Your task to perform on an android device: uninstall "Move to iOS" Image 0: 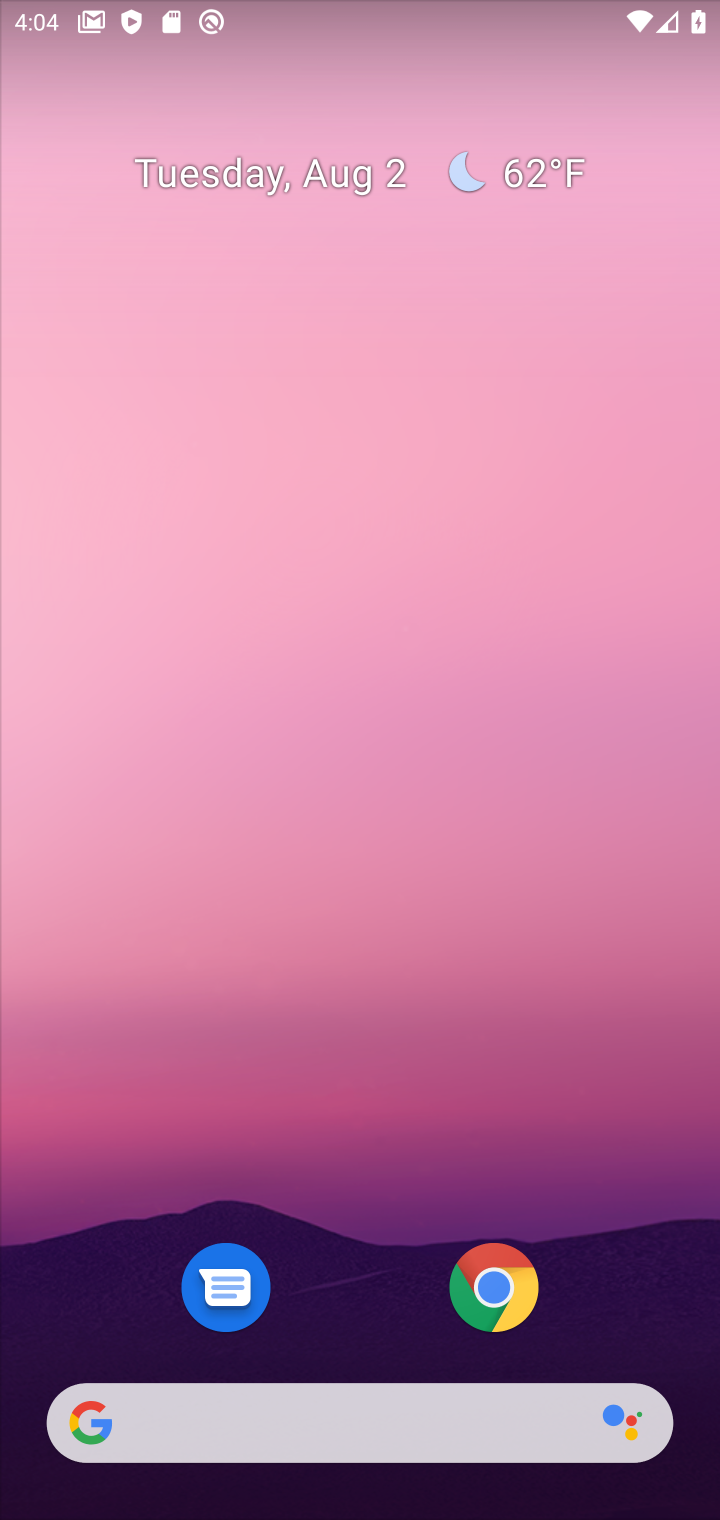
Step 0: drag from (352, 1193) to (317, 714)
Your task to perform on an android device: uninstall "Move to iOS" Image 1: 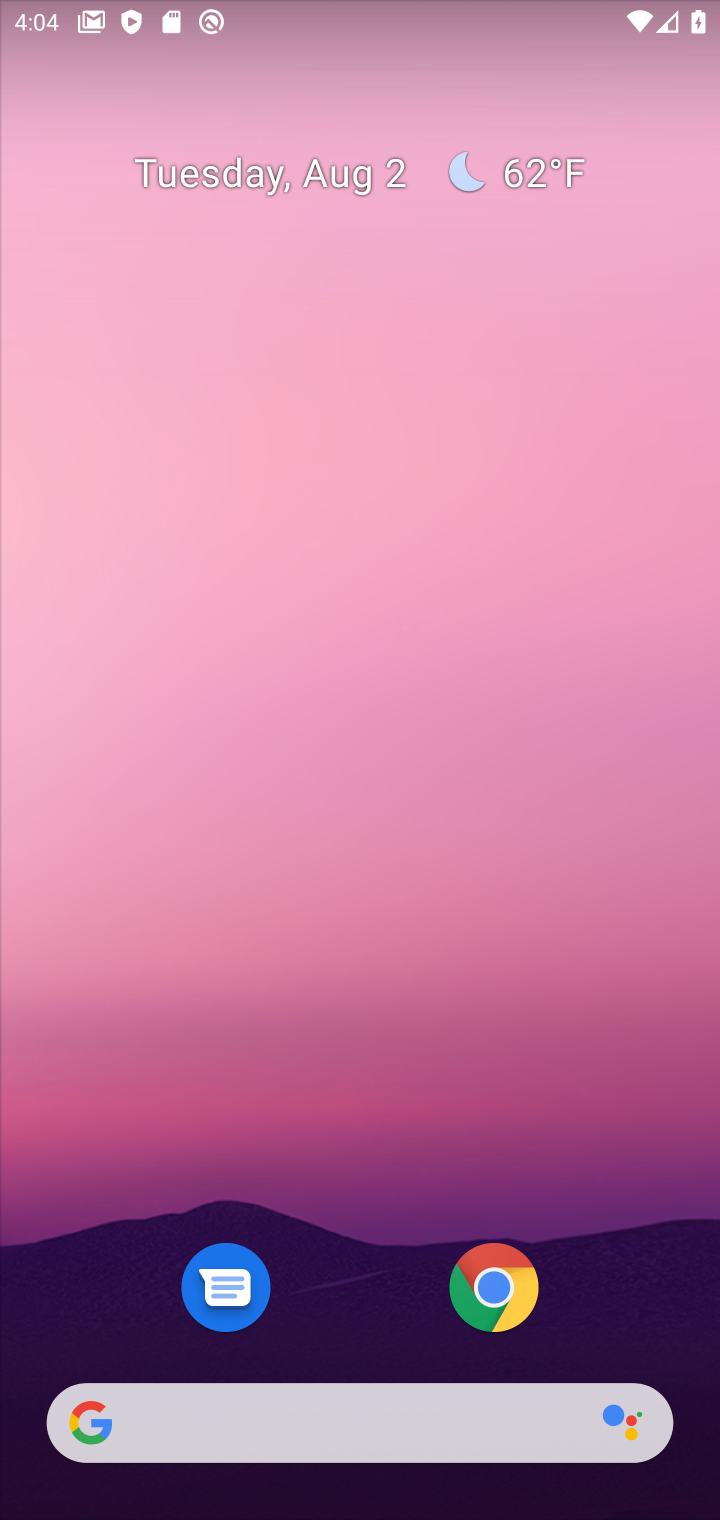
Step 1: drag from (341, 961) to (411, 74)
Your task to perform on an android device: uninstall "Move to iOS" Image 2: 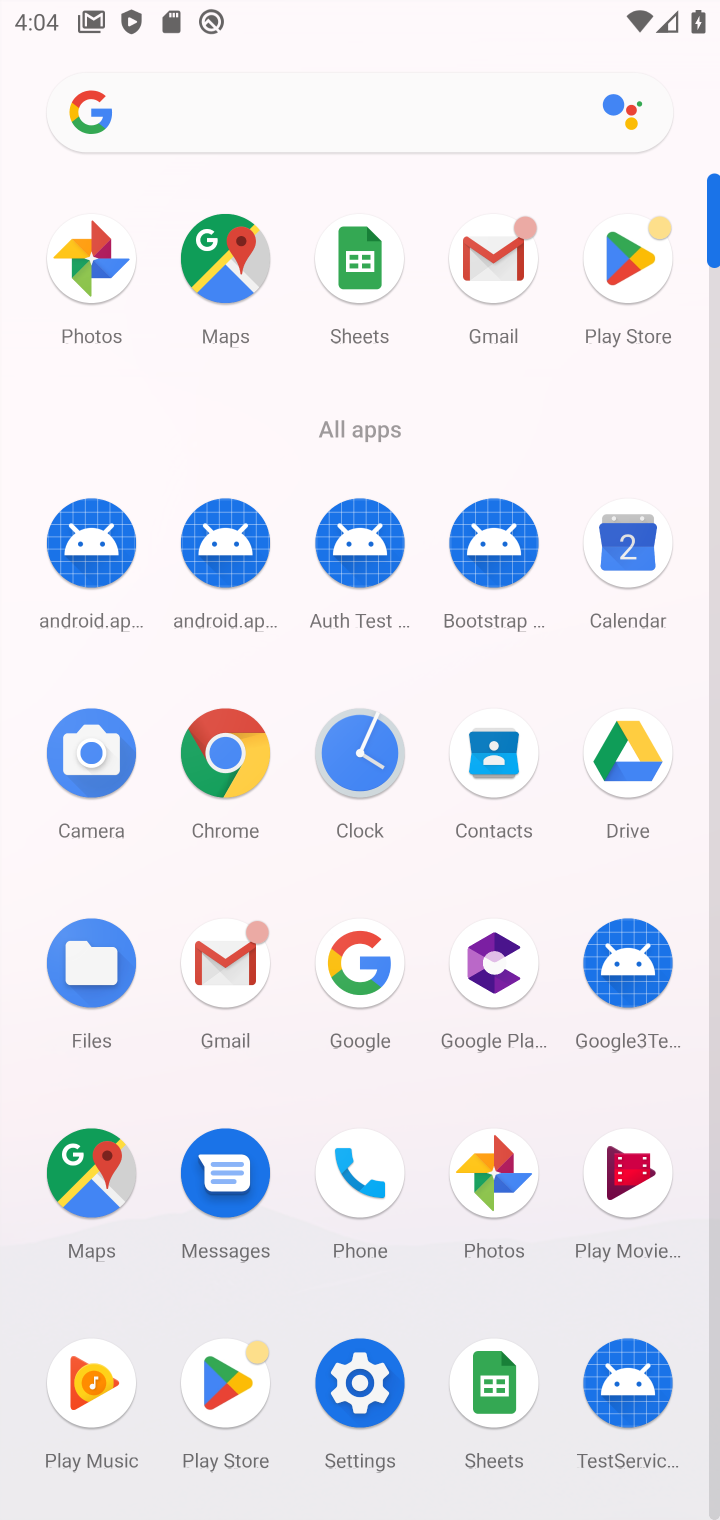
Step 2: click (231, 1395)
Your task to perform on an android device: uninstall "Move to iOS" Image 3: 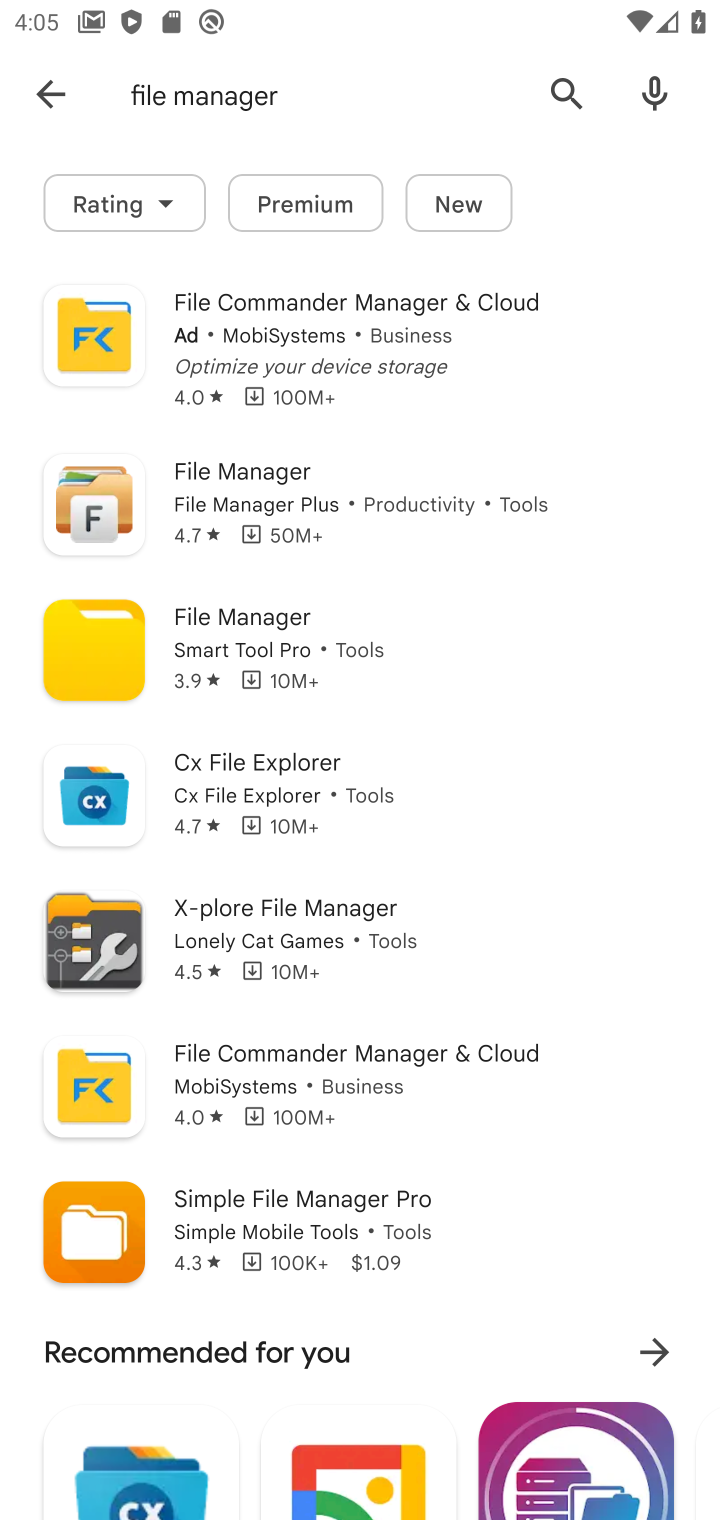
Step 3: click (560, 103)
Your task to perform on an android device: uninstall "Move to iOS" Image 4: 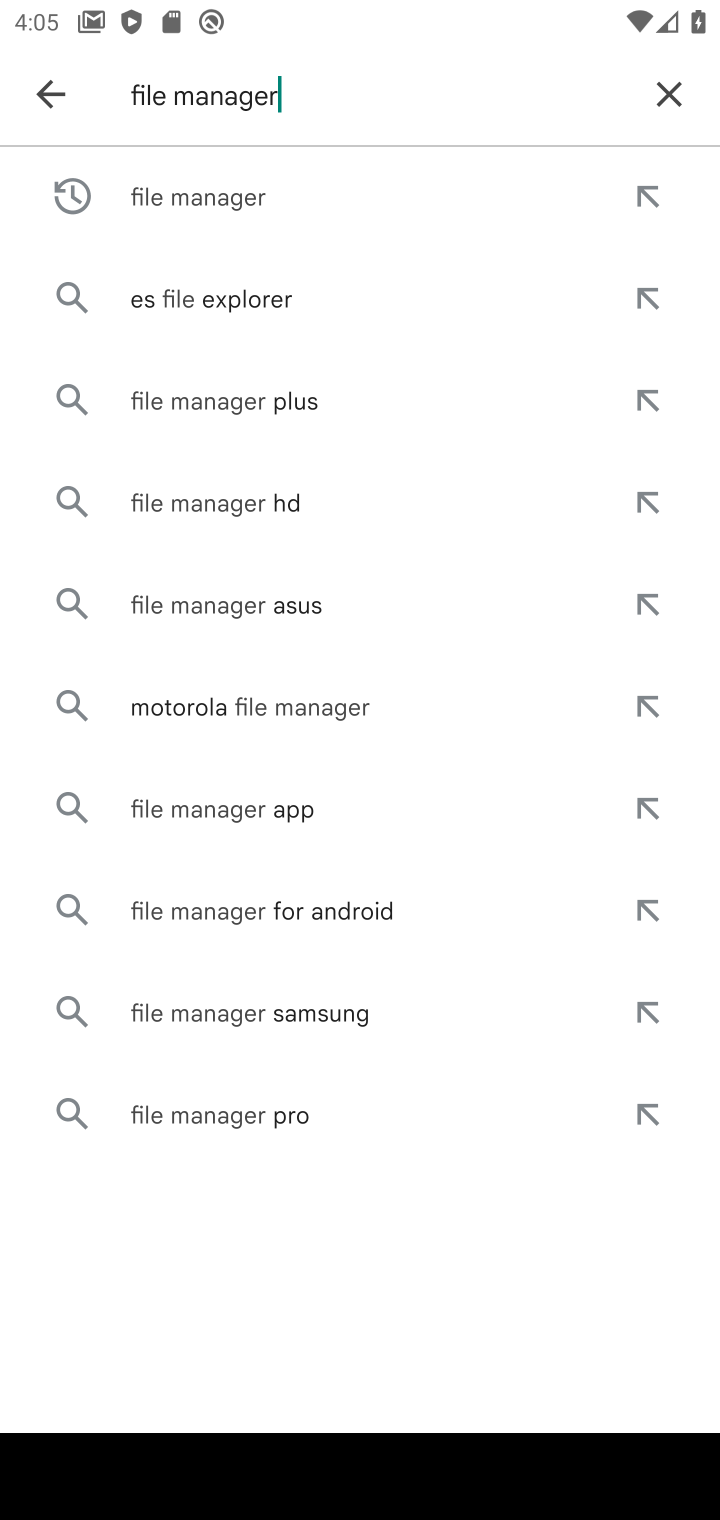
Step 4: click (665, 92)
Your task to perform on an android device: uninstall "Move to iOS" Image 5: 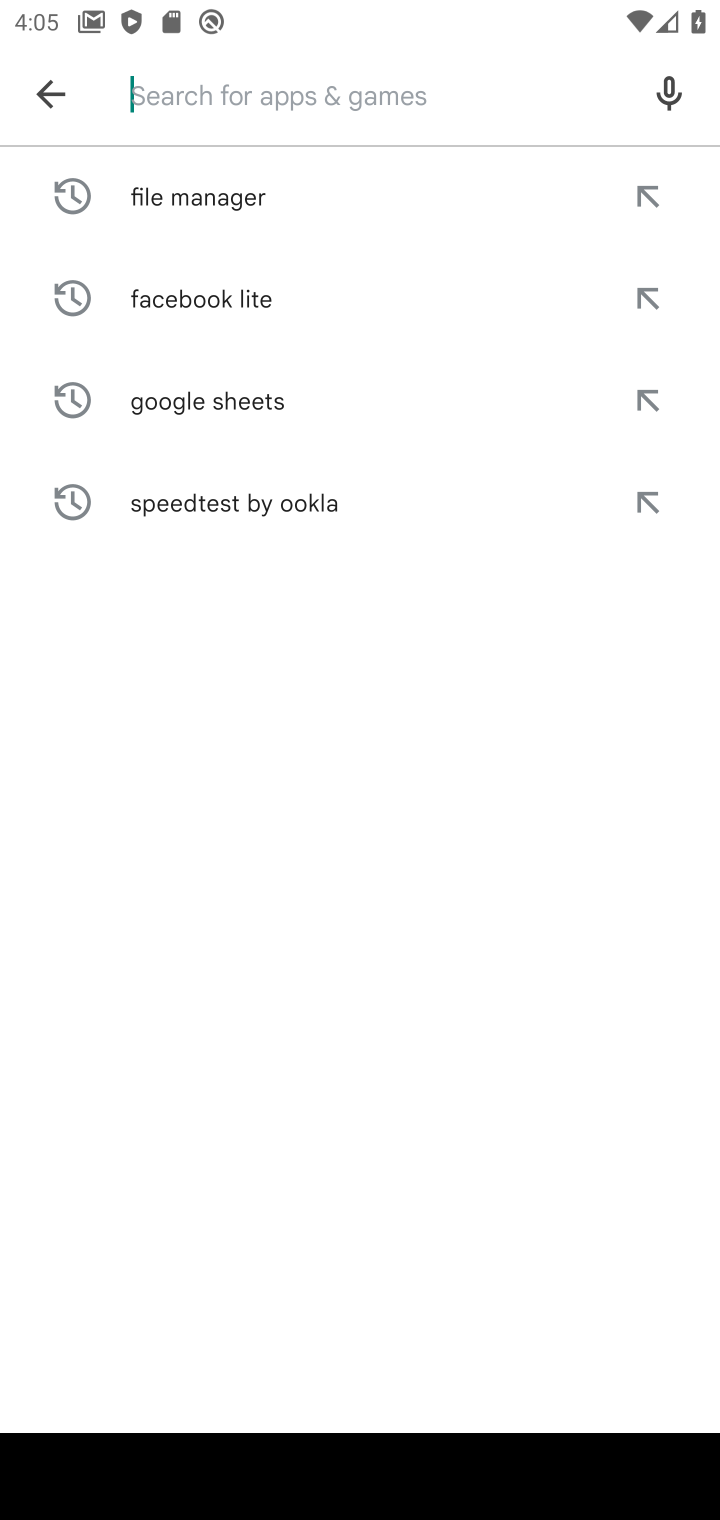
Step 5: type "Move to iOS"
Your task to perform on an android device: uninstall "Move to iOS" Image 6: 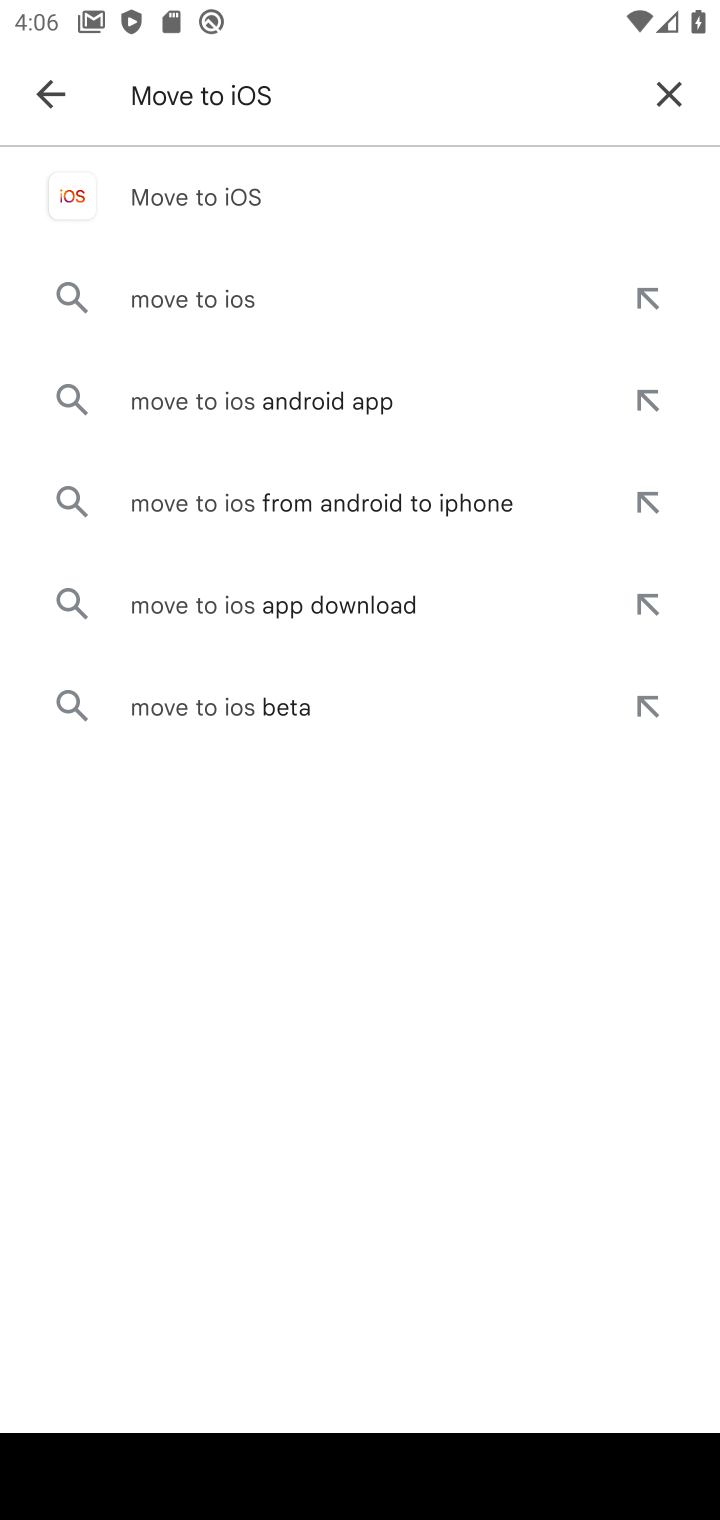
Step 6: click (306, 208)
Your task to perform on an android device: uninstall "Move to iOS" Image 7: 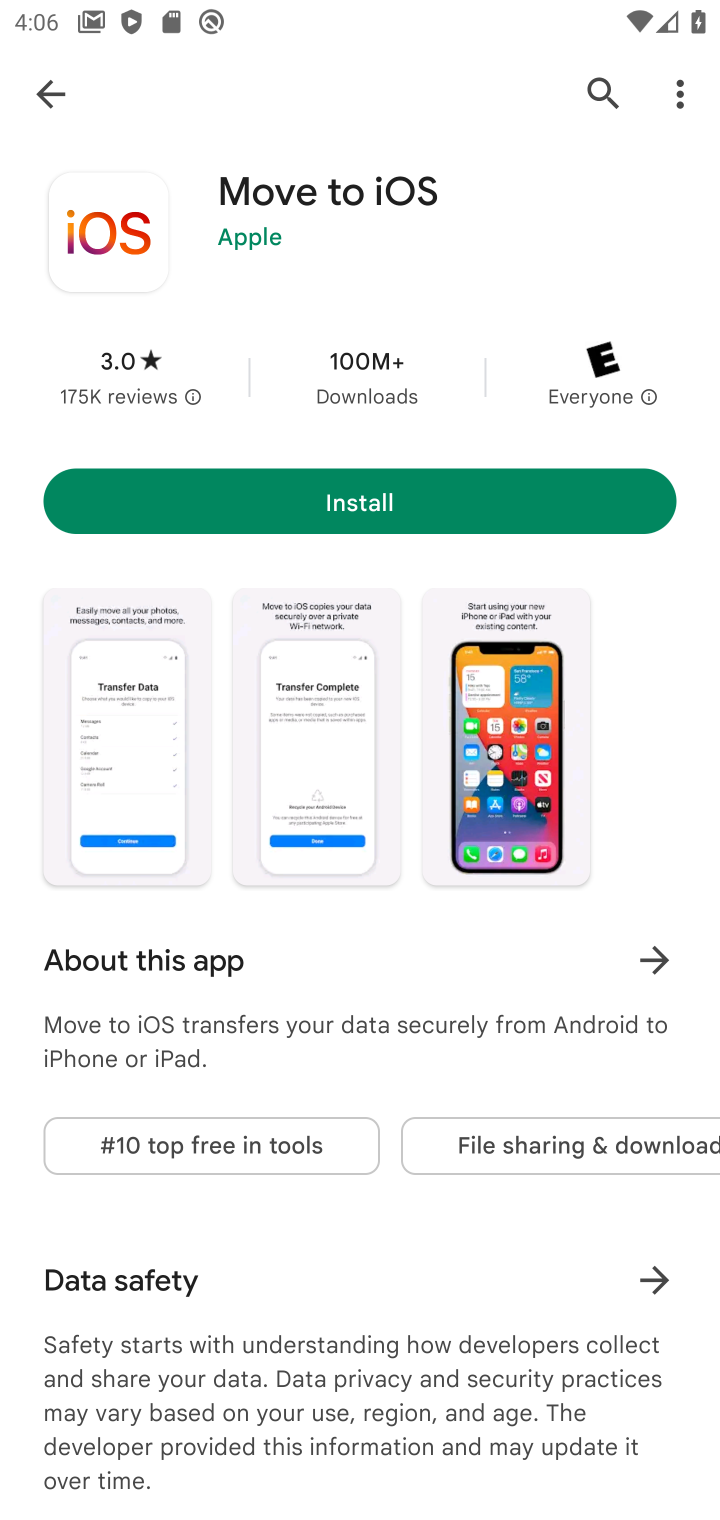
Step 7: task complete